Your task to perform on an android device: turn off data saver in the chrome app Image 0: 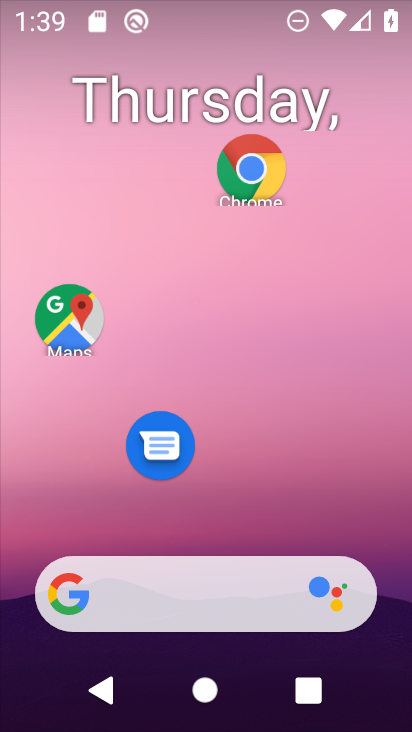
Step 0: drag from (256, 657) to (236, 314)
Your task to perform on an android device: turn off data saver in the chrome app Image 1: 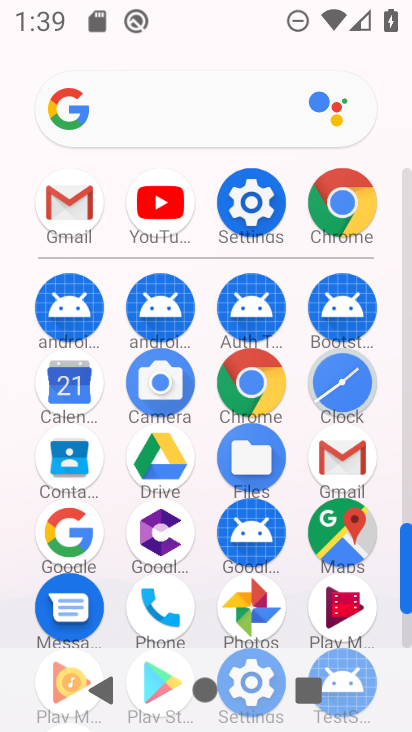
Step 1: click (350, 202)
Your task to perform on an android device: turn off data saver in the chrome app Image 2: 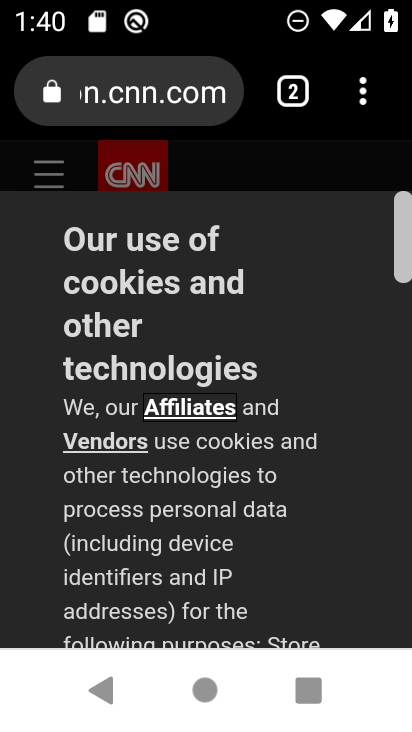
Step 2: click (360, 83)
Your task to perform on an android device: turn off data saver in the chrome app Image 3: 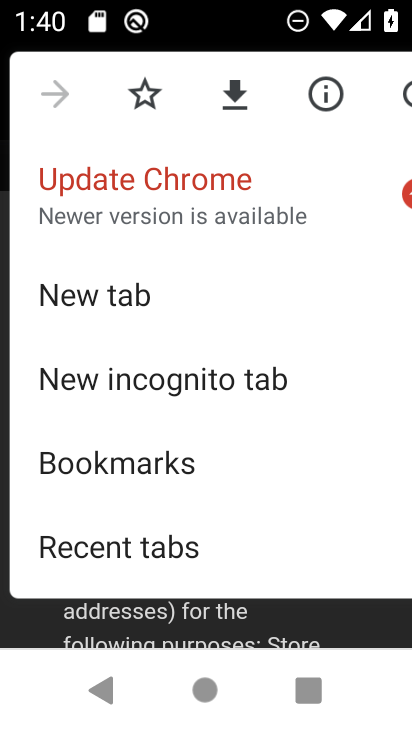
Step 3: drag from (156, 534) to (165, 353)
Your task to perform on an android device: turn off data saver in the chrome app Image 4: 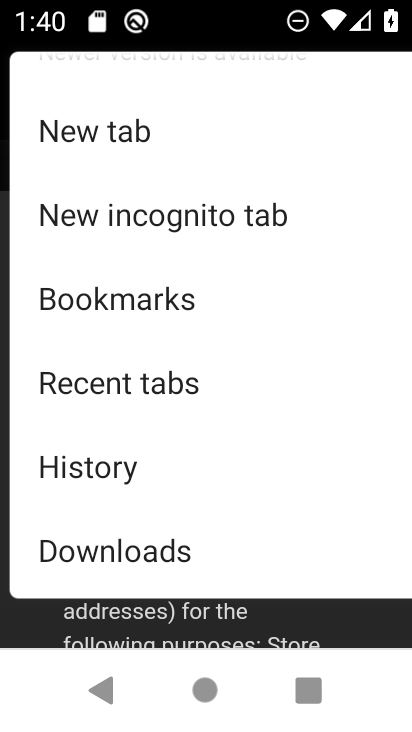
Step 4: drag from (132, 531) to (156, 312)
Your task to perform on an android device: turn off data saver in the chrome app Image 5: 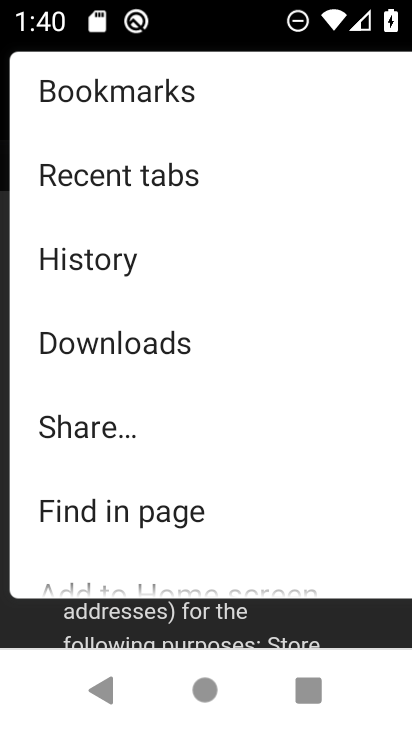
Step 5: drag from (141, 393) to (187, 198)
Your task to perform on an android device: turn off data saver in the chrome app Image 6: 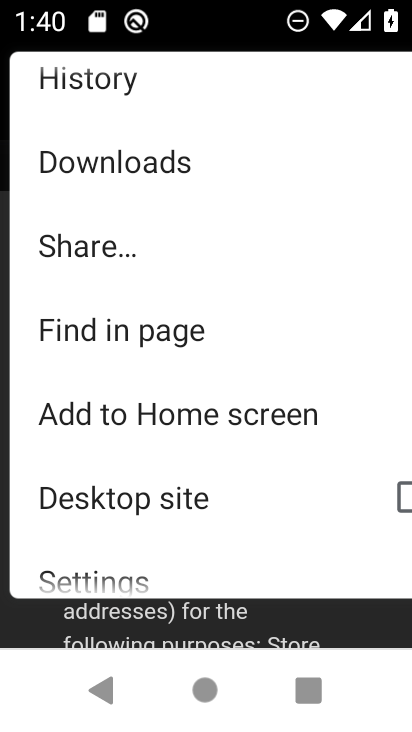
Step 6: click (97, 578)
Your task to perform on an android device: turn off data saver in the chrome app Image 7: 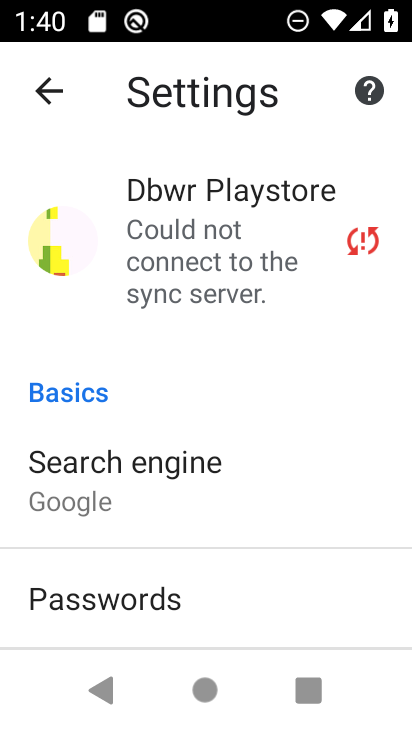
Step 7: drag from (162, 568) to (202, 348)
Your task to perform on an android device: turn off data saver in the chrome app Image 8: 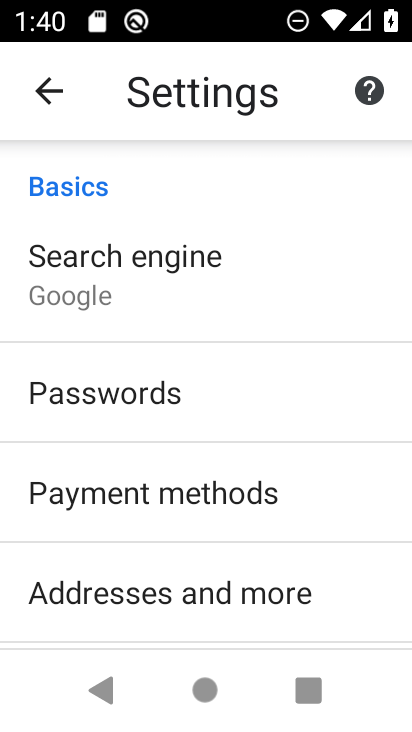
Step 8: drag from (190, 529) to (251, 283)
Your task to perform on an android device: turn off data saver in the chrome app Image 9: 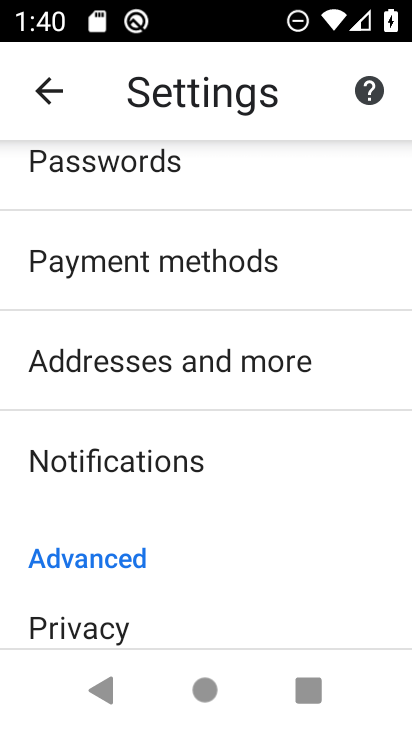
Step 9: drag from (195, 517) to (253, 294)
Your task to perform on an android device: turn off data saver in the chrome app Image 10: 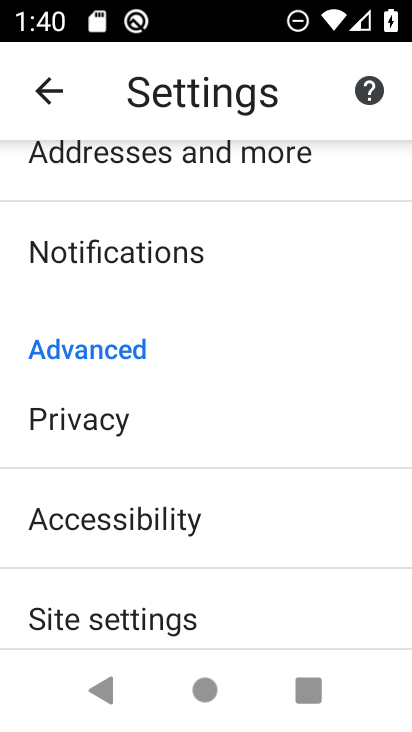
Step 10: drag from (131, 571) to (209, 397)
Your task to perform on an android device: turn off data saver in the chrome app Image 11: 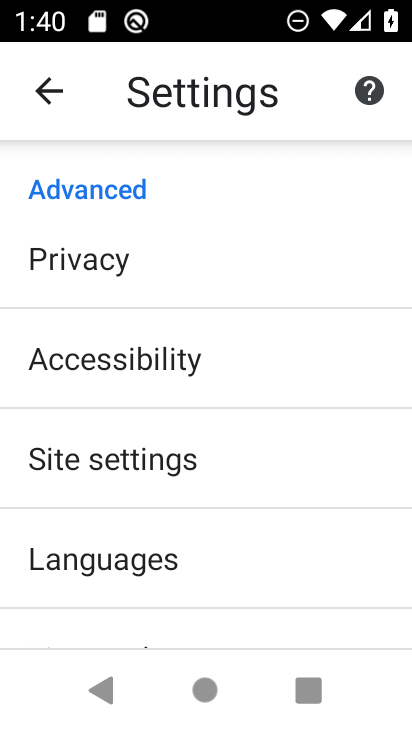
Step 11: drag from (80, 591) to (123, 489)
Your task to perform on an android device: turn off data saver in the chrome app Image 12: 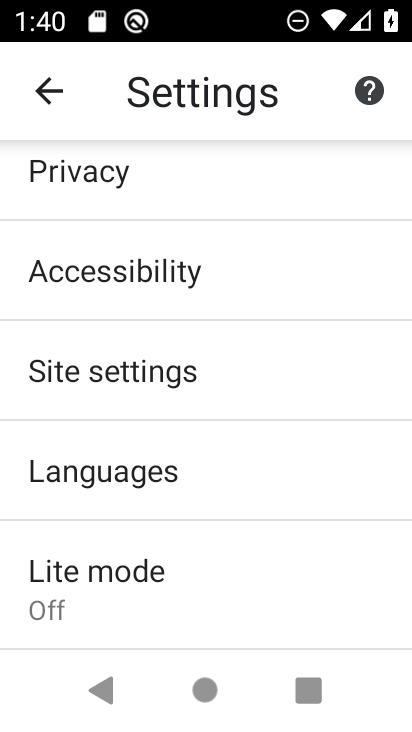
Step 12: click (117, 585)
Your task to perform on an android device: turn off data saver in the chrome app Image 13: 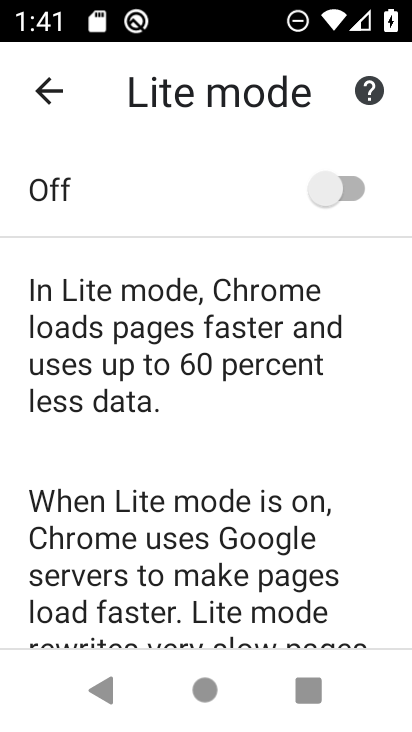
Step 13: click (340, 198)
Your task to perform on an android device: turn off data saver in the chrome app Image 14: 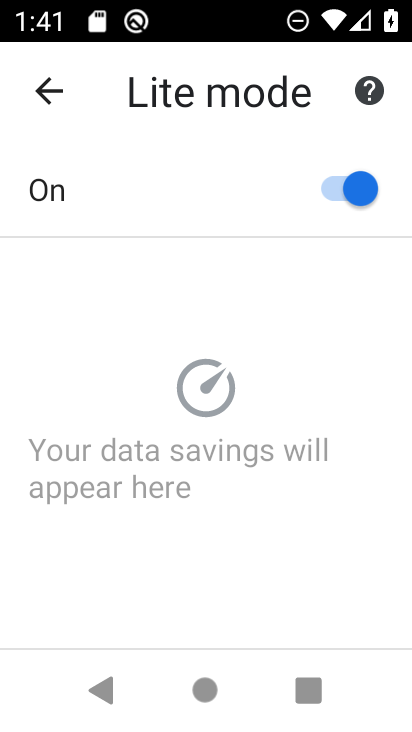
Step 14: click (340, 197)
Your task to perform on an android device: turn off data saver in the chrome app Image 15: 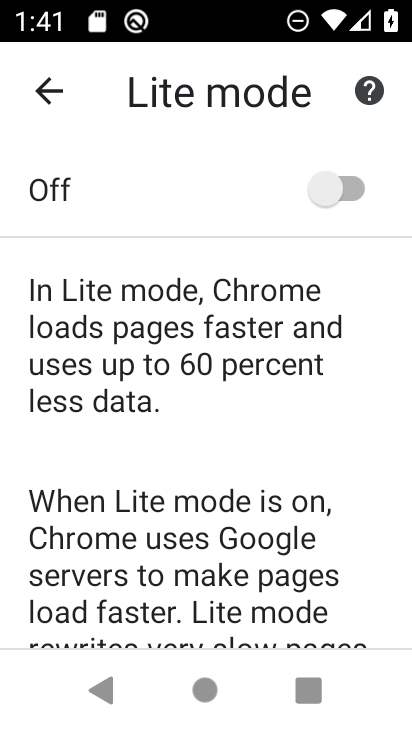
Step 15: task complete